Your task to perform on an android device: see sites visited before in the chrome app Image 0: 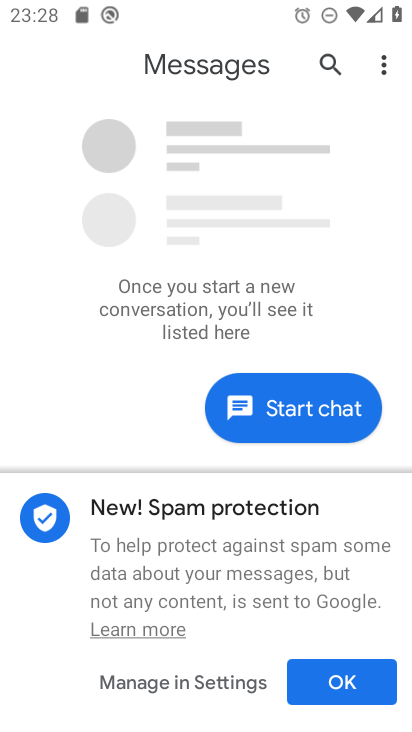
Step 0: press home button
Your task to perform on an android device: see sites visited before in the chrome app Image 1: 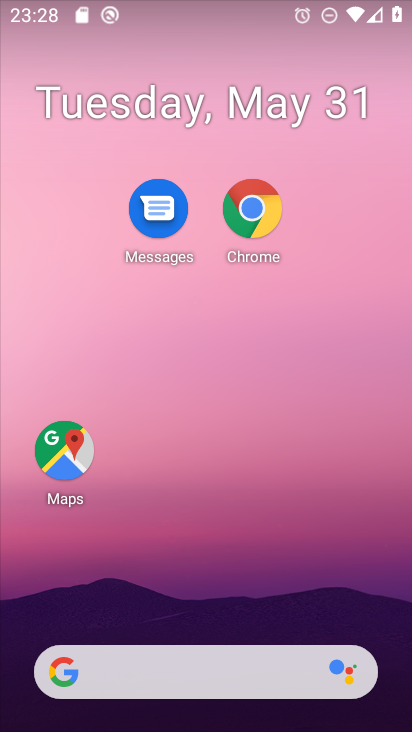
Step 1: click (247, 204)
Your task to perform on an android device: see sites visited before in the chrome app Image 2: 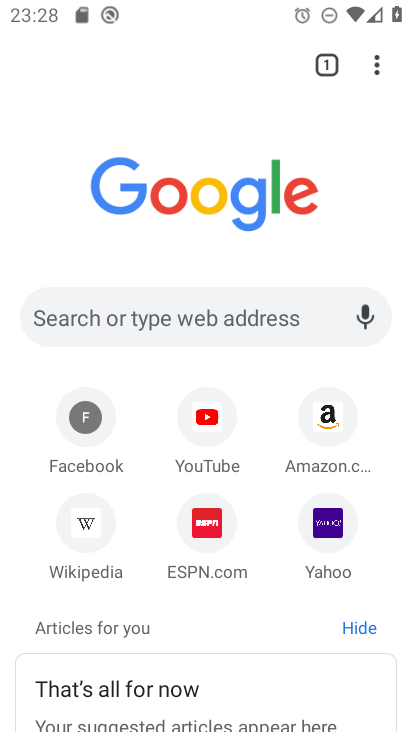
Step 2: click (377, 59)
Your task to perform on an android device: see sites visited before in the chrome app Image 3: 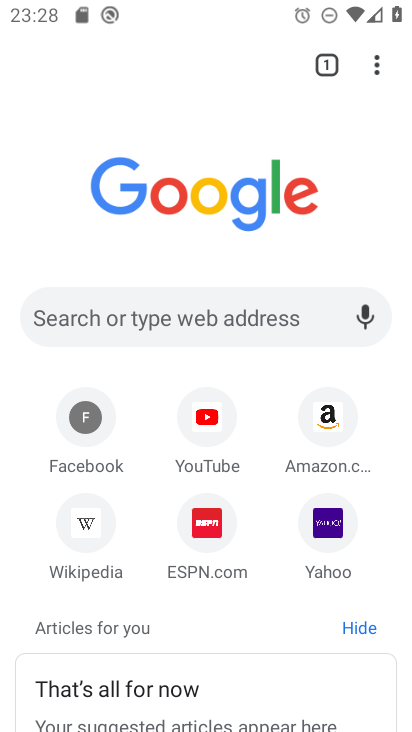
Step 3: click (378, 59)
Your task to perform on an android device: see sites visited before in the chrome app Image 4: 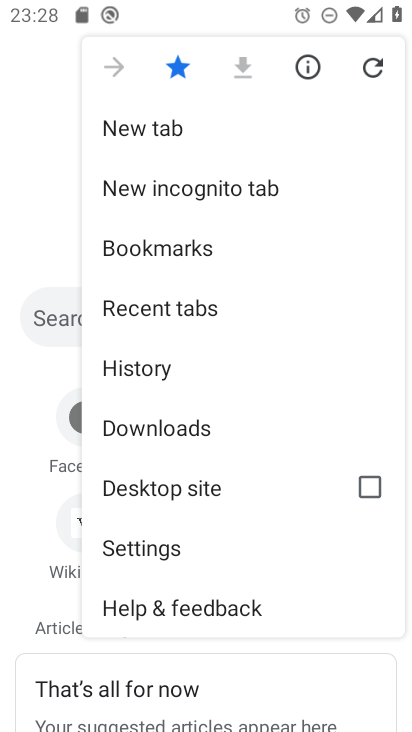
Step 4: click (186, 370)
Your task to perform on an android device: see sites visited before in the chrome app Image 5: 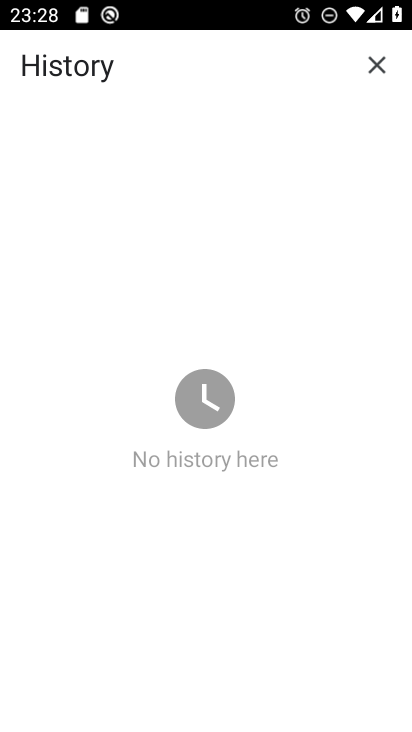
Step 5: task complete